Your task to perform on an android device: Show the shopping cart on ebay.com. Add "asus zenbook" to the cart on ebay.com Image 0: 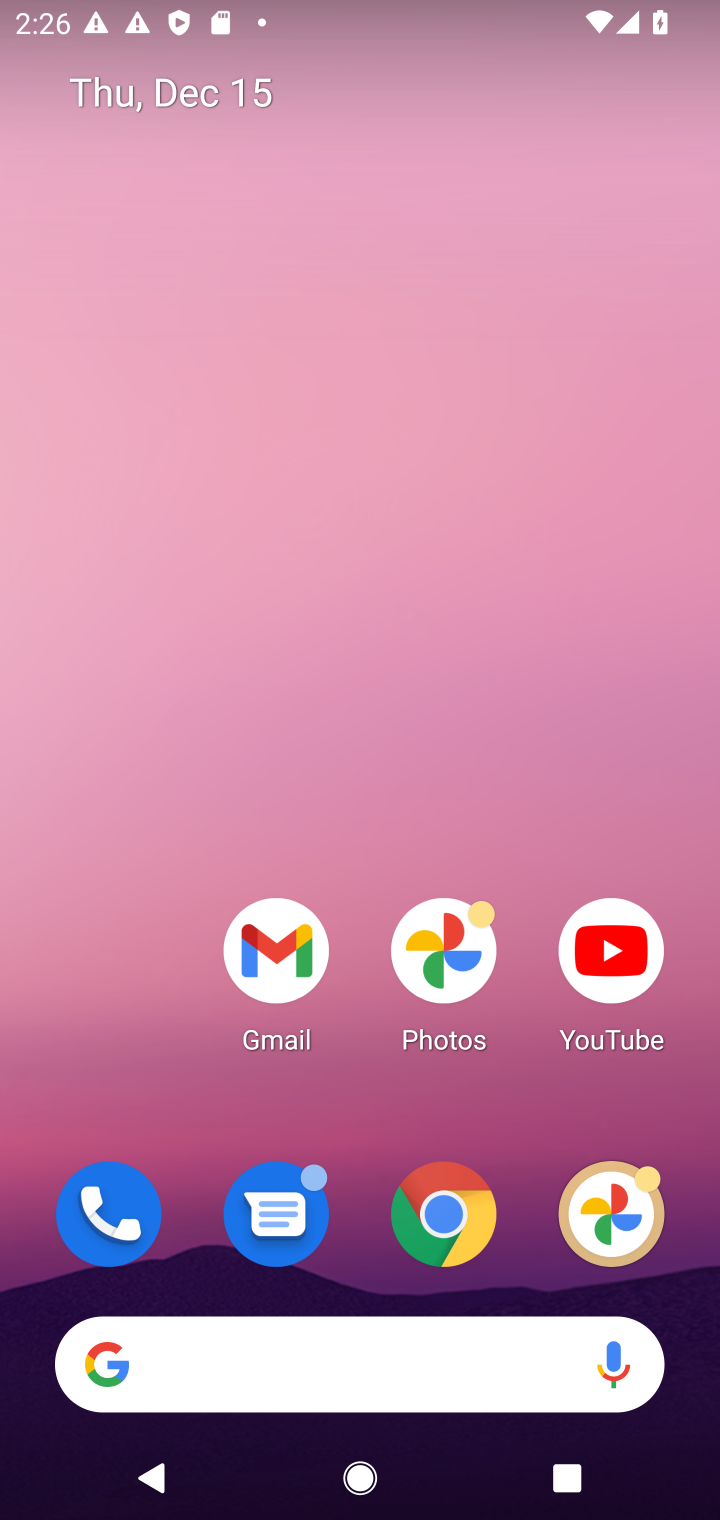
Step 0: click (455, 1252)
Your task to perform on an android device: Show the shopping cart on ebay.com. Add "asus zenbook" to the cart on ebay.com Image 1: 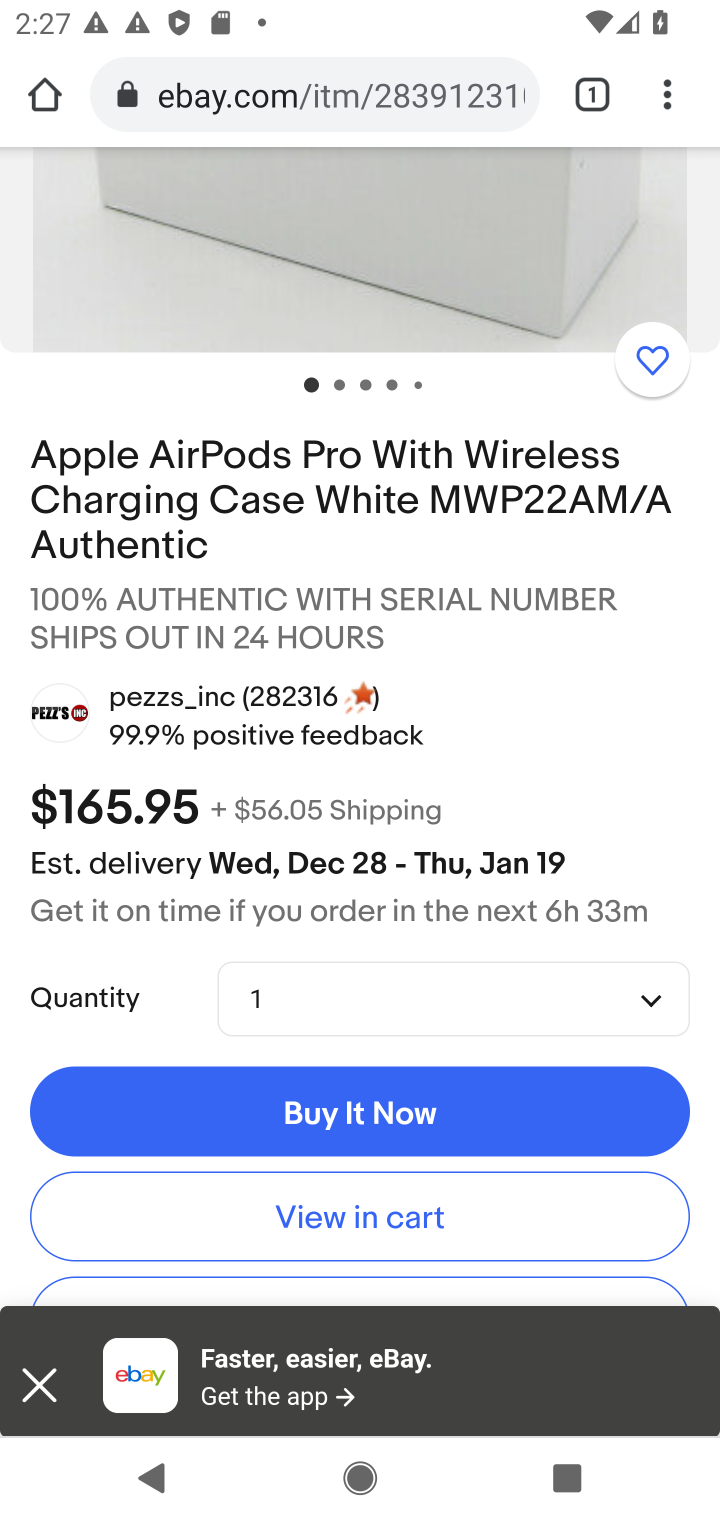
Step 1: drag from (313, 414) to (292, 1134)
Your task to perform on an android device: Show the shopping cart on ebay.com. Add "asus zenbook" to the cart on ebay.com Image 2: 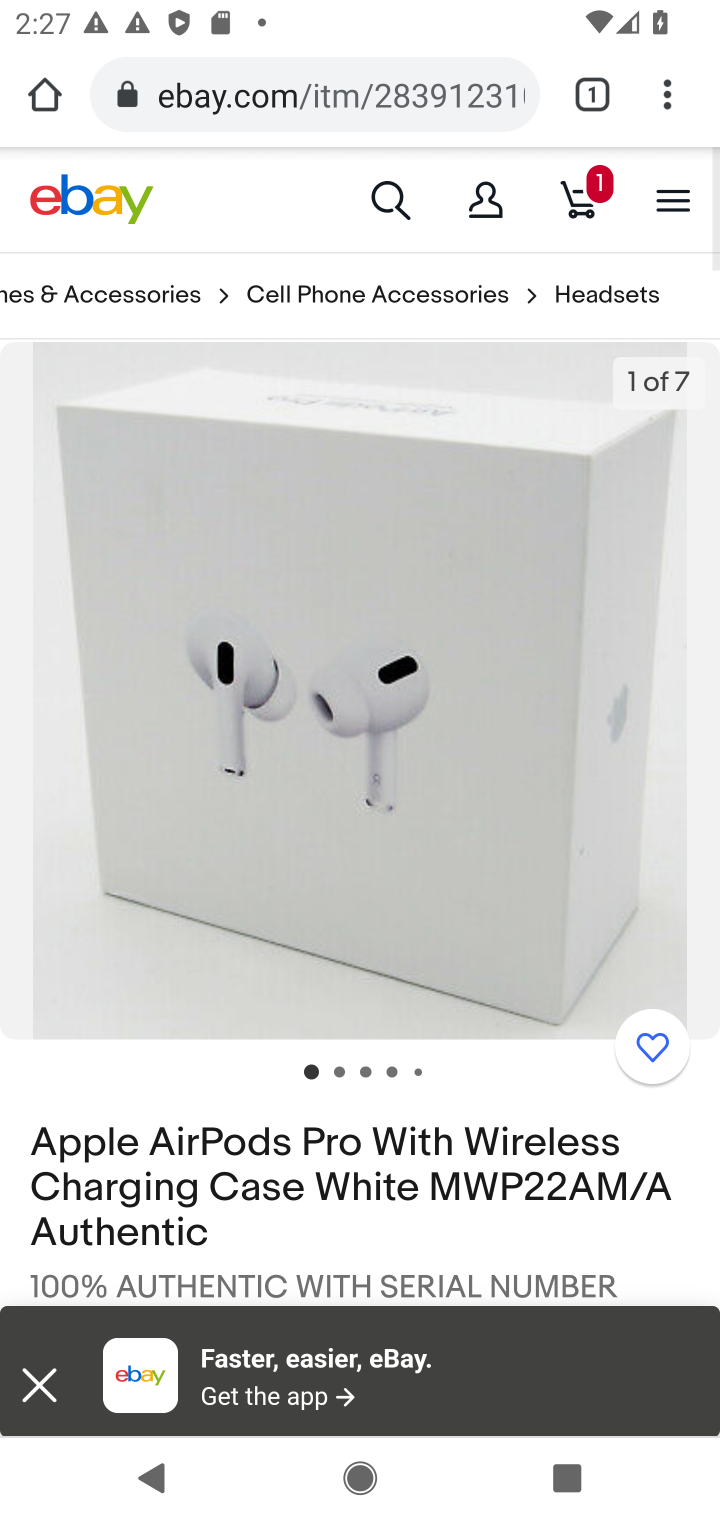
Step 2: drag from (450, 509) to (436, 696)
Your task to perform on an android device: Show the shopping cart on ebay.com. Add "asus zenbook" to the cart on ebay.com Image 3: 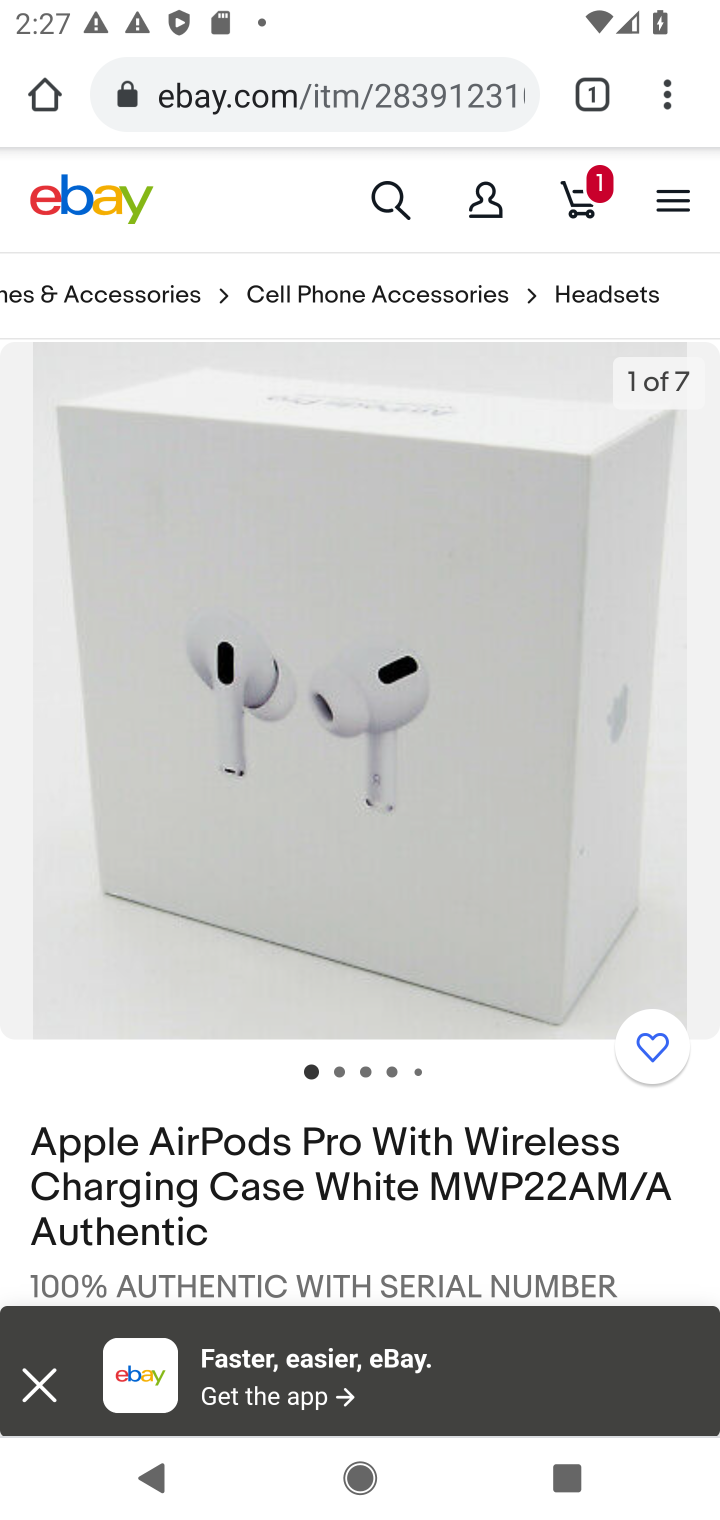
Step 3: click (580, 210)
Your task to perform on an android device: Show the shopping cart on ebay.com. Add "asus zenbook" to the cart on ebay.com Image 4: 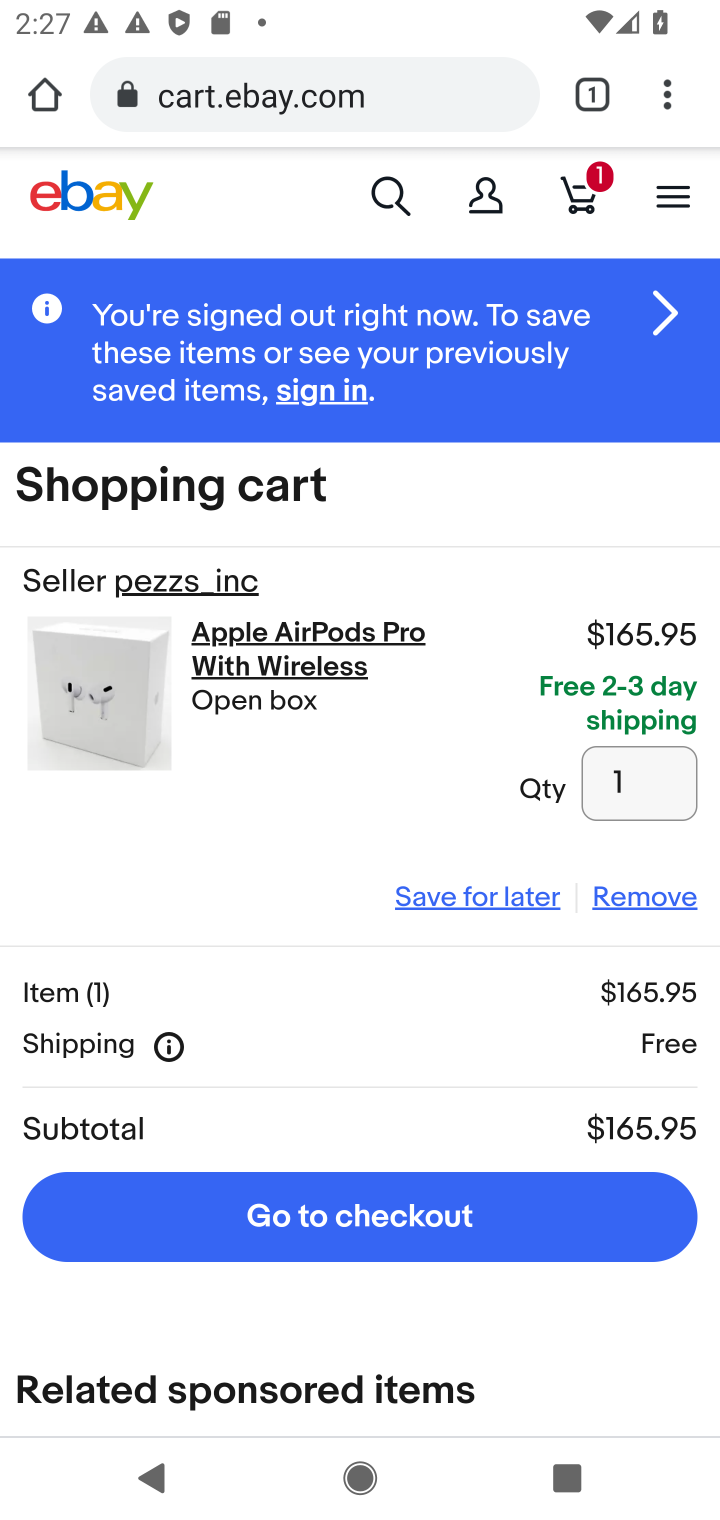
Step 4: click (379, 207)
Your task to perform on an android device: Show the shopping cart on ebay.com. Add "asus zenbook" to the cart on ebay.com Image 5: 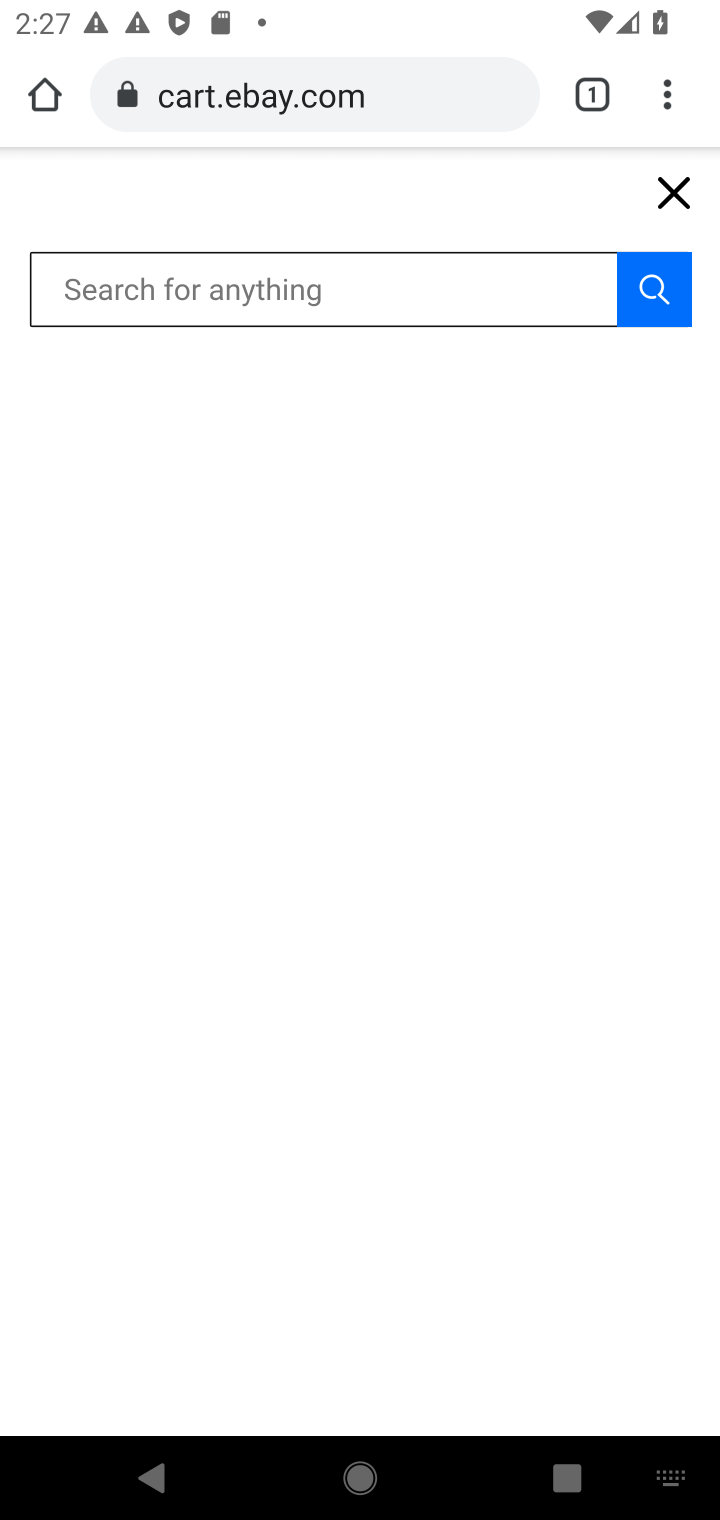
Step 5: type "asus zenbook"
Your task to perform on an android device: Show the shopping cart on ebay.com. Add "asus zenbook" to the cart on ebay.com Image 6: 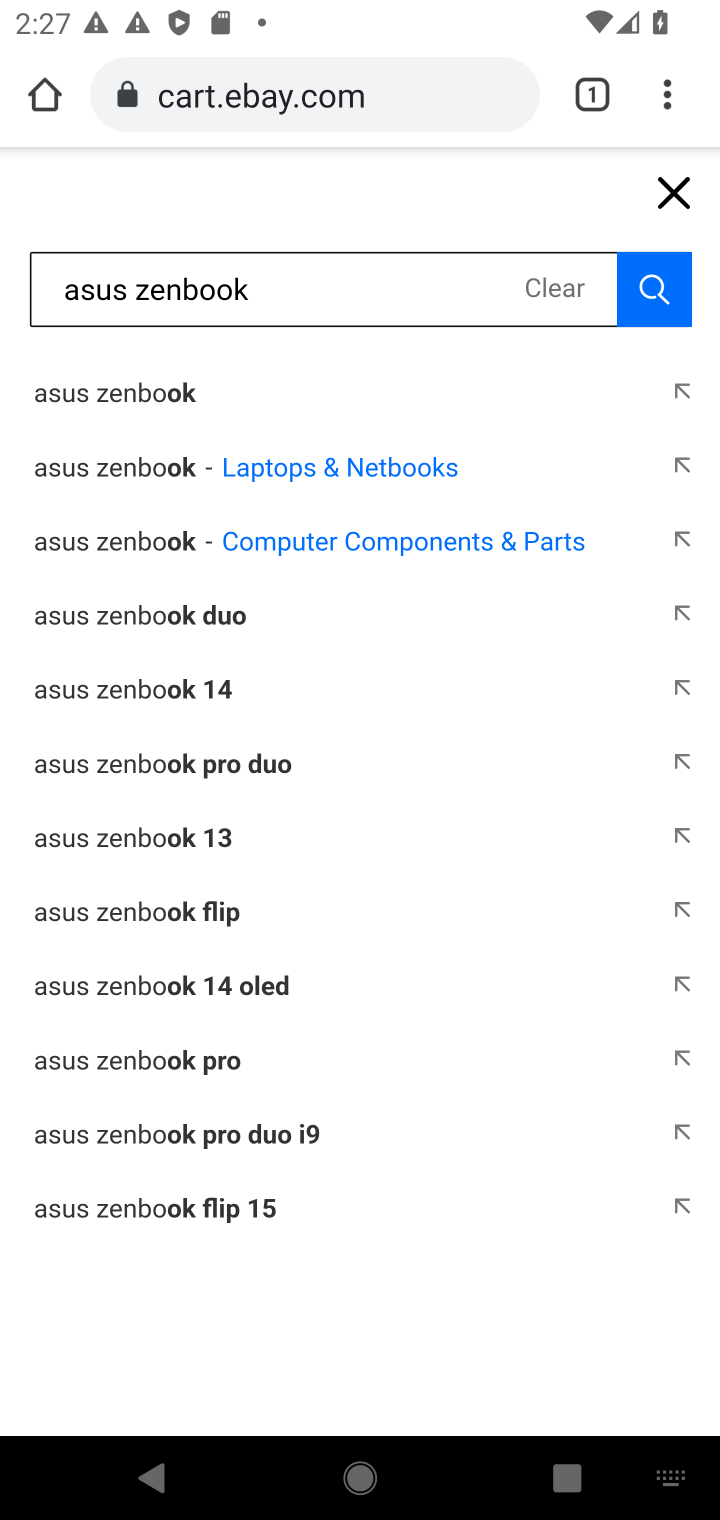
Step 6: click (92, 403)
Your task to perform on an android device: Show the shopping cart on ebay.com. Add "asus zenbook" to the cart on ebay.com Image 7: 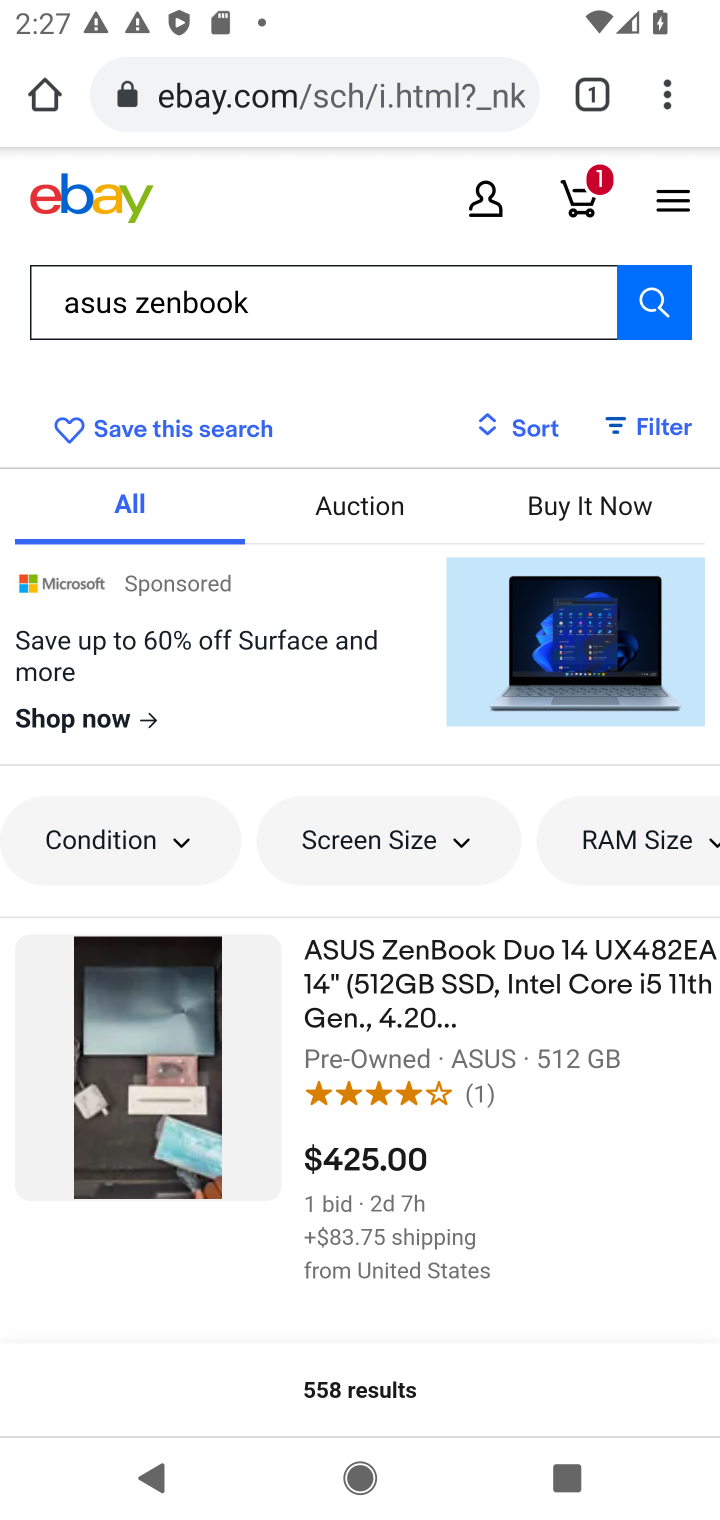
Step 7: drag from (303, 1103) to (317, 826)
Your task to perform on an android device: Show the shopping cart on ebay.com. Add "asus zenbook" to the cart on ebay.com Image 8: 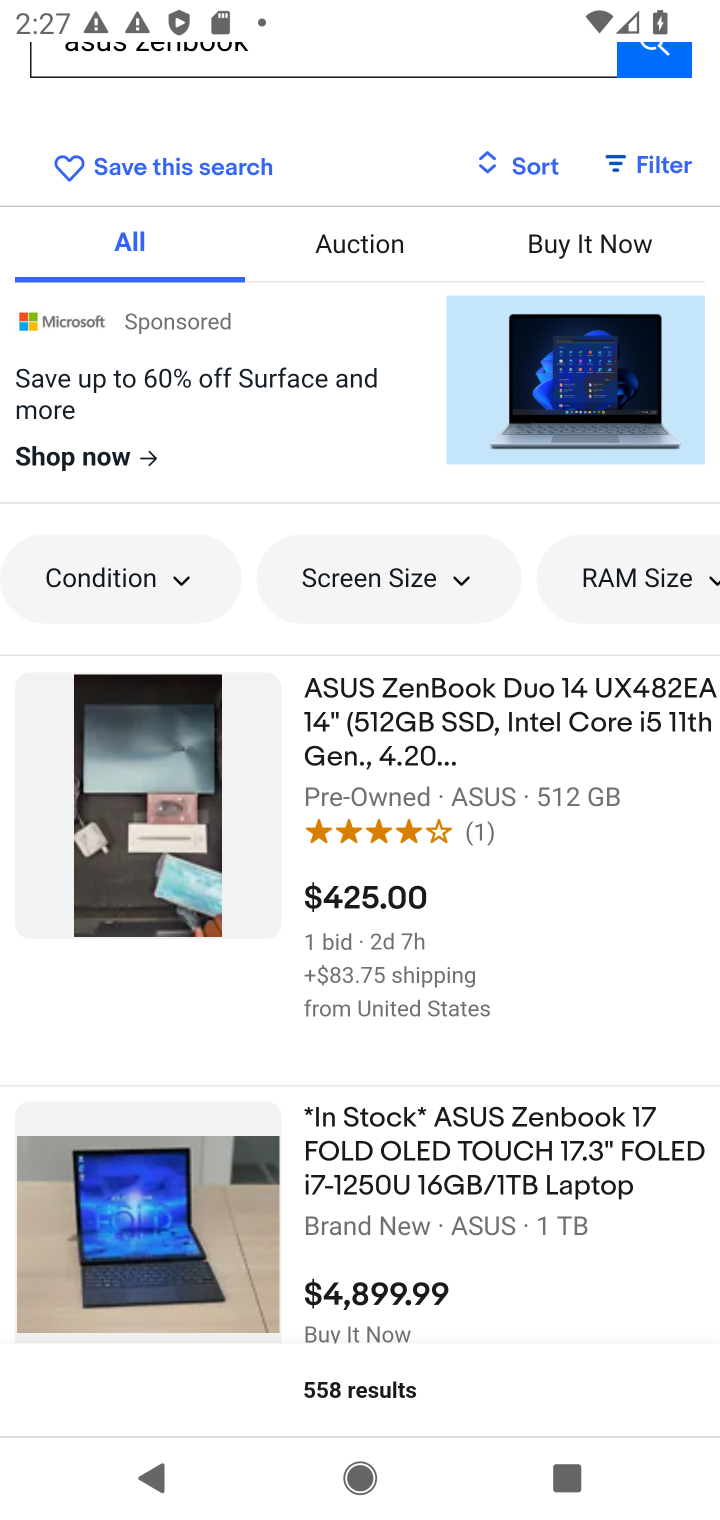
Step 8: drag from (360, 1064) to (346, 788)
Your task to perform on an android device: Show the shopping cart on ebay.com. Add "asus zenbook" to the cart on ebay.com Image 9: 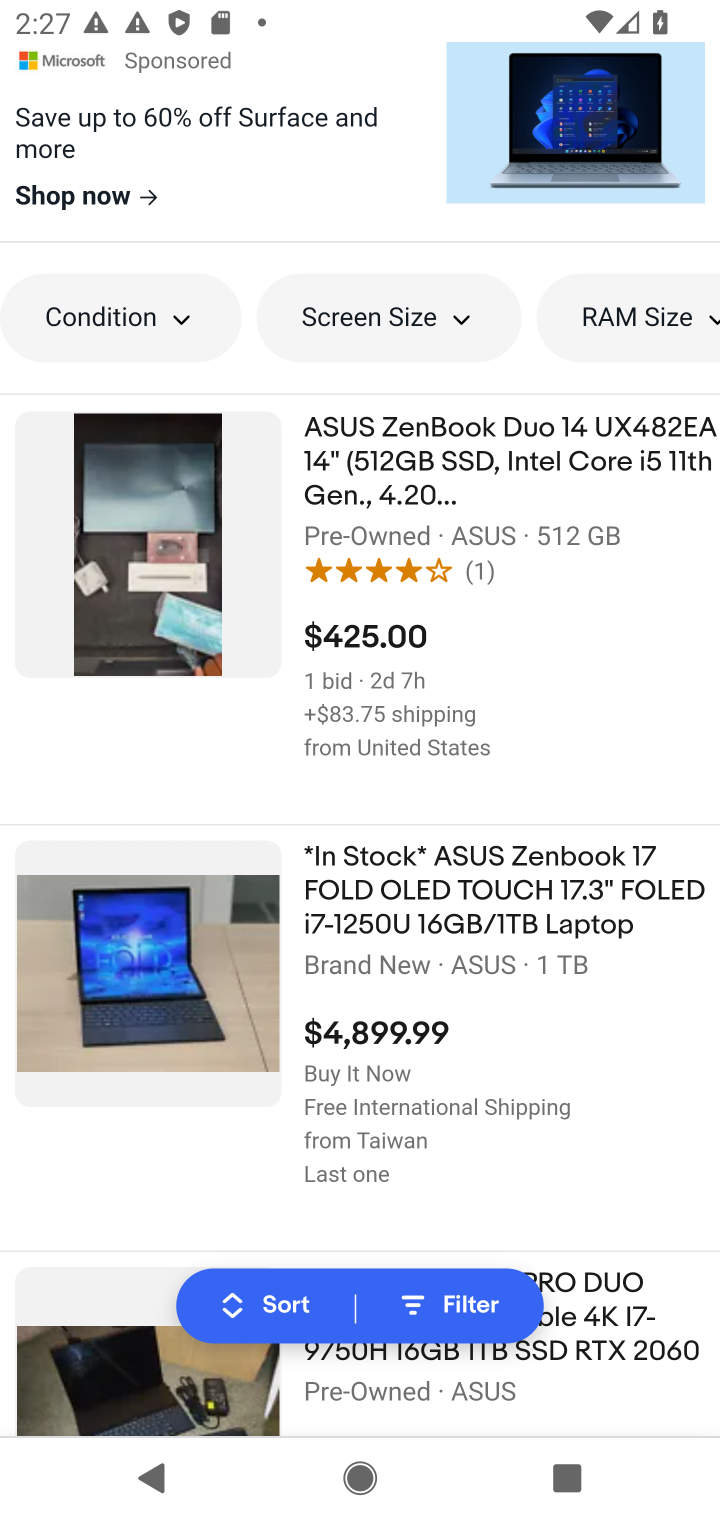
Step 9: click (484, 928)
Your task to perform on an android device: Show the shopping cart on ebay.com. Add "asus zenbook" to the cart on ebay.com Image 10: 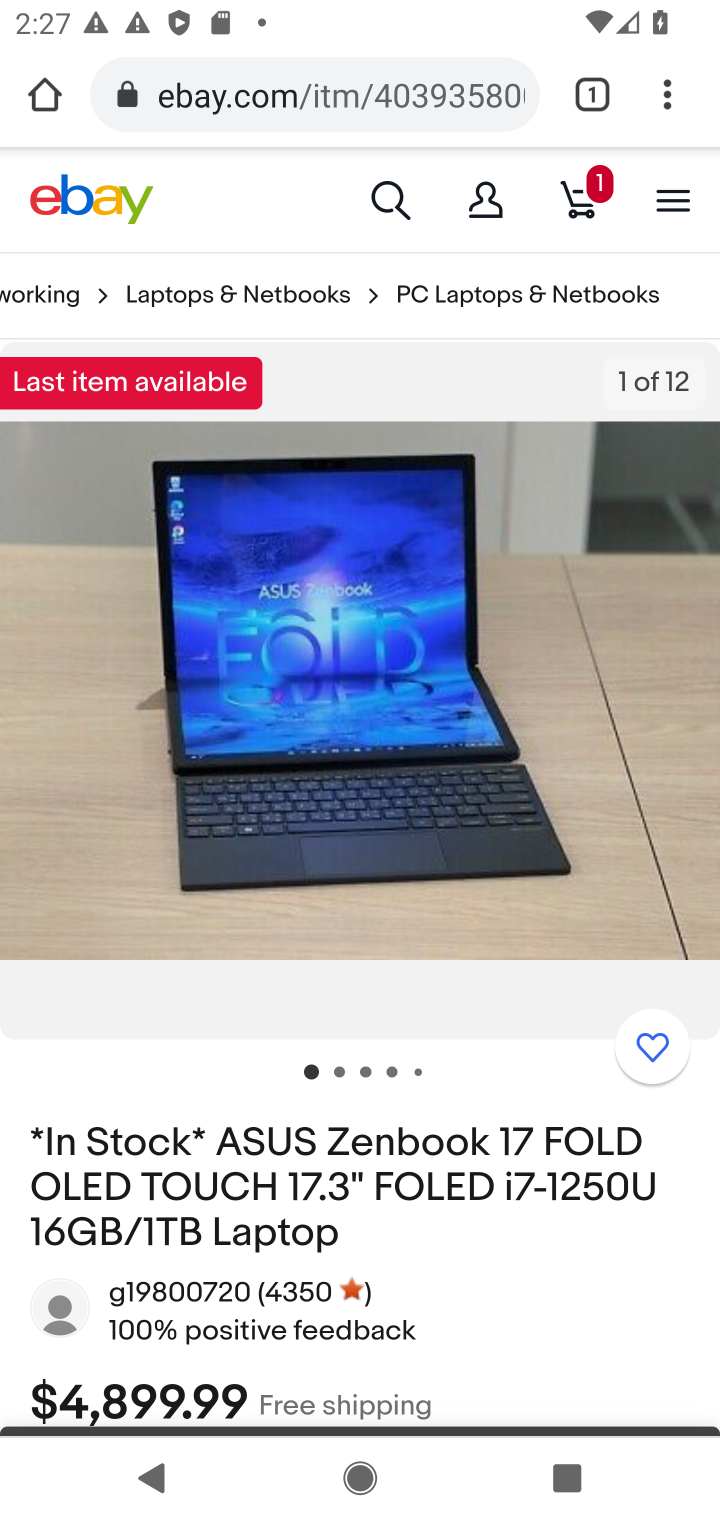
Step 10: drag from (385, 1040) to (389, 714)
Your task to perform on an android device: Show the shopping cart on ebay.com. Add "asus zenbook" to the cart on ebay.com Image 11: 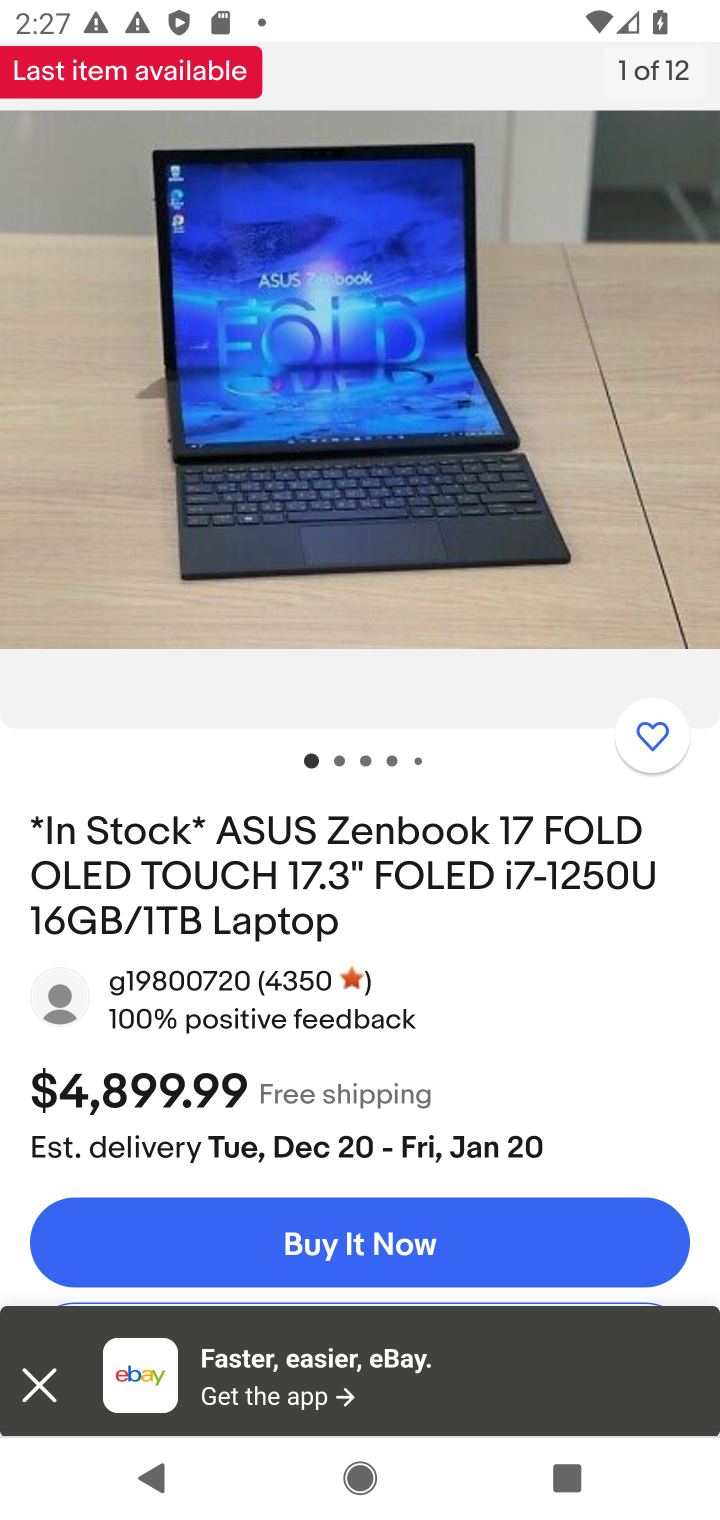
Step 11: drag from (312, 905) to (330, 616)
Your task to perform on an android device: Show the shopping cart on ebay.com. Add "asus zenbook" to the cart on ebay.com Image 12: 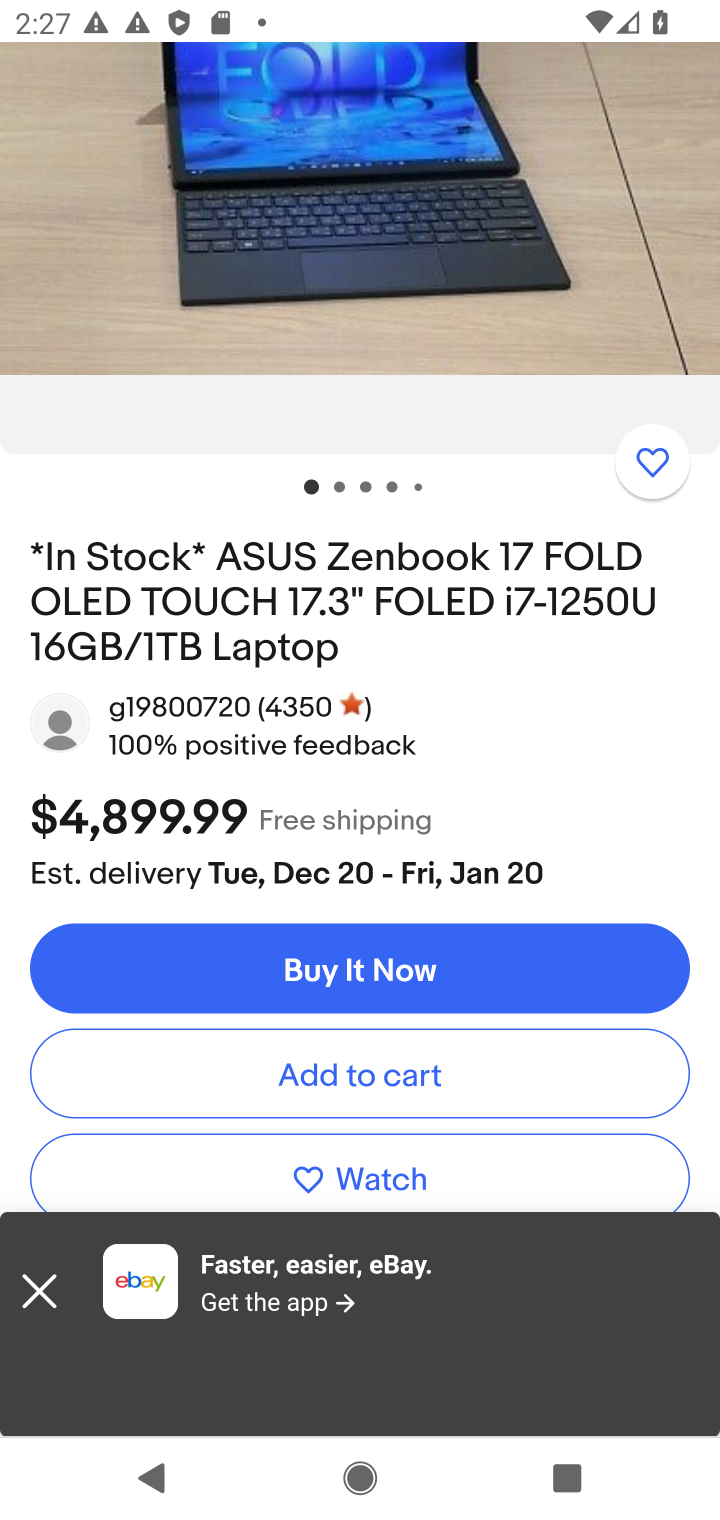
Step 12: click (323, 1071)
Your task to perform on an android device: Show the shopping cart on ebay.com. Add "asus zenbook" to the cart on ebay.com Image 13: 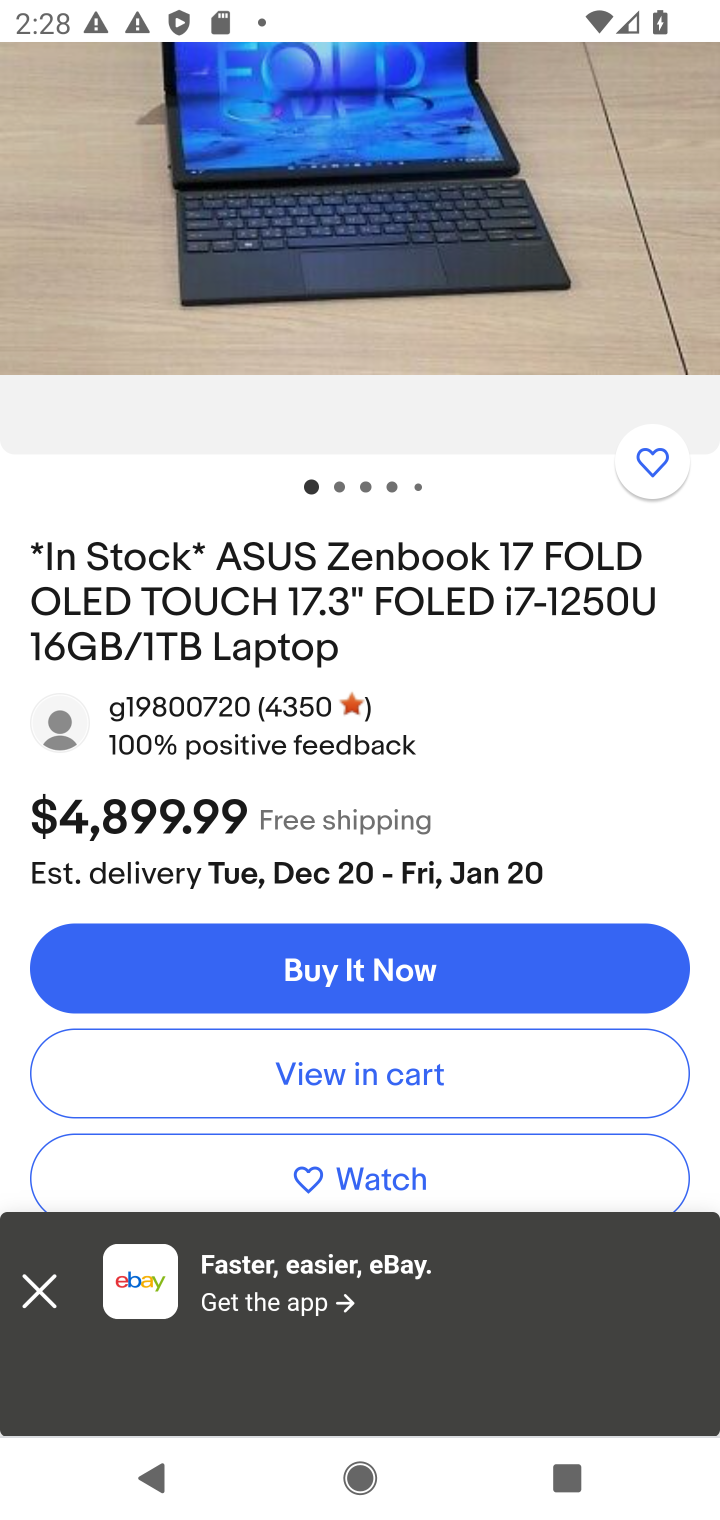
Step 13: task complete